Your task to perform on an android device: all mails in gmail Image 0: 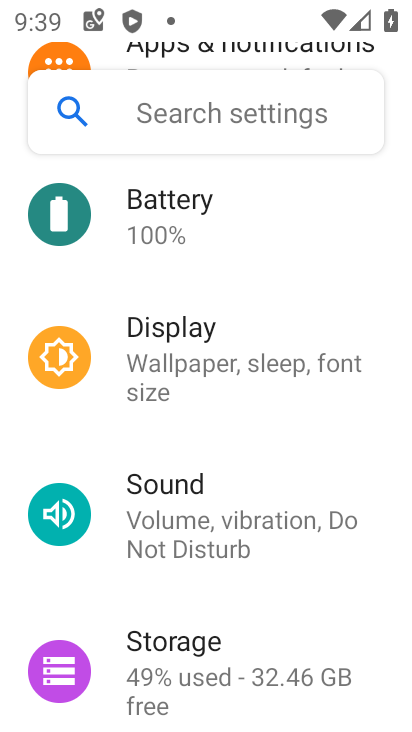
Step 0: press home button
Your task to perform on an android device: all mails in gmail Image 1: 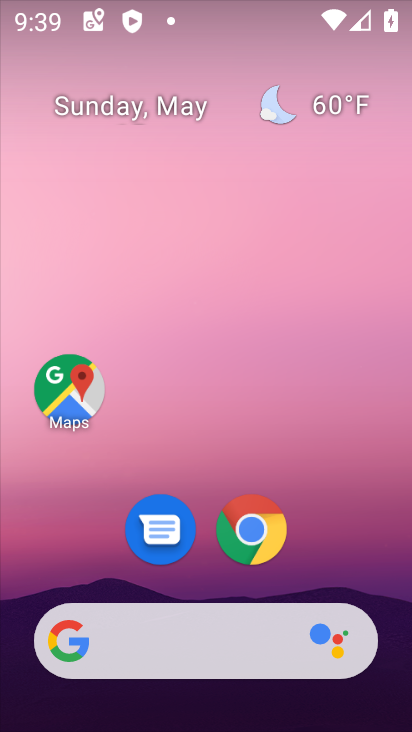
Step 1: drag from (331, 558) to (379, 103)
Your task to perform on an android device: all mails in gmail Image 2: 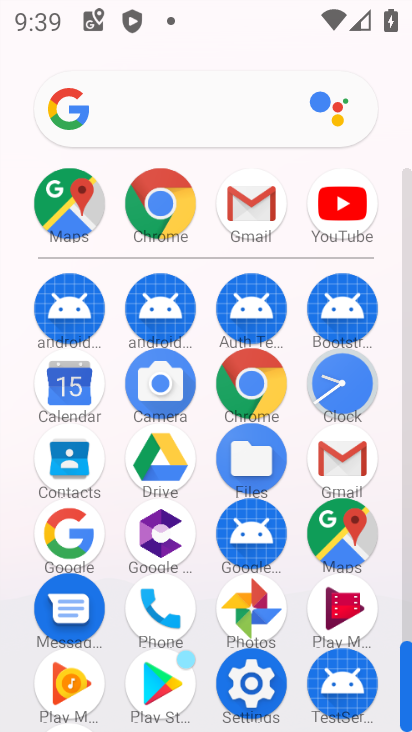
Step 2: click (344, 476)
Your task to perform on an android device: all mails in gmail Image 3: 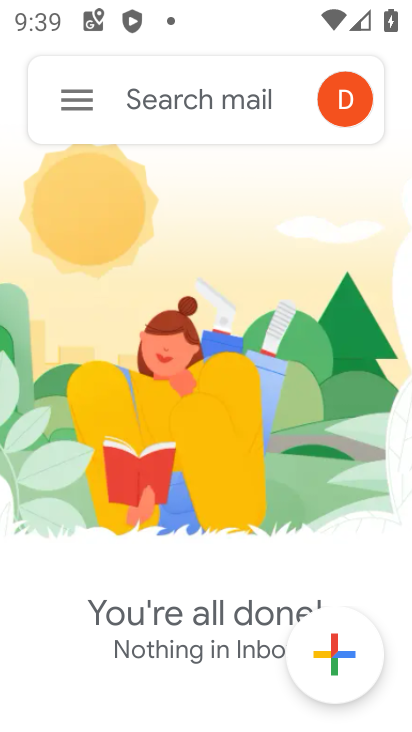
Step 3: click (94, 97)
Your task to perform on an android device: all mails in gmail Image 4: 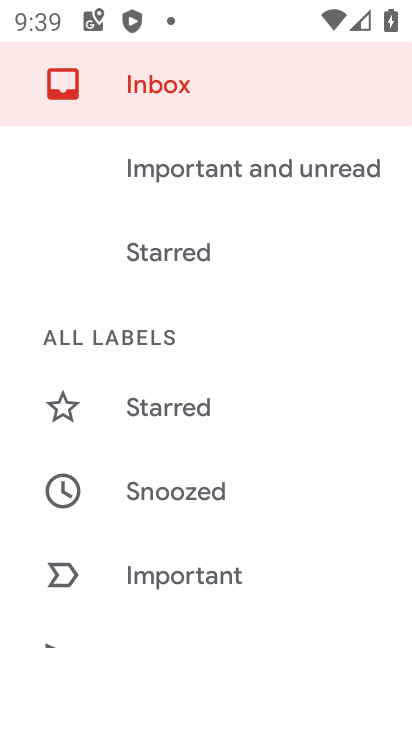
Step 4: drag from (334, 481) to (332, 350)
Your task to perform on an android device: all mails in gmail Image 5: 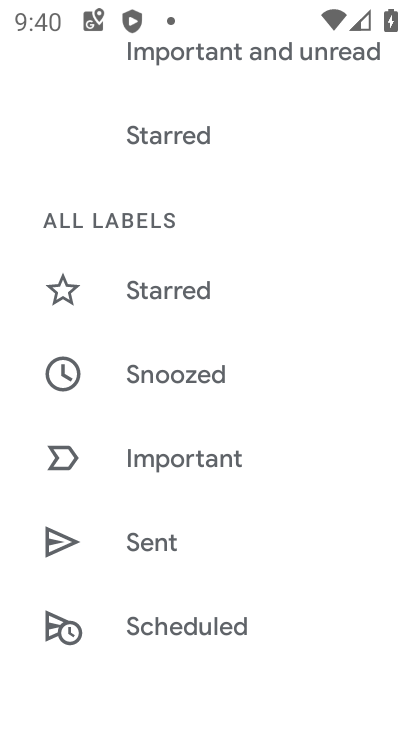
Step 5: drag from (314, 602) to (316, 412)
Your task to perform on an android device: all mails in gmail Image 6: 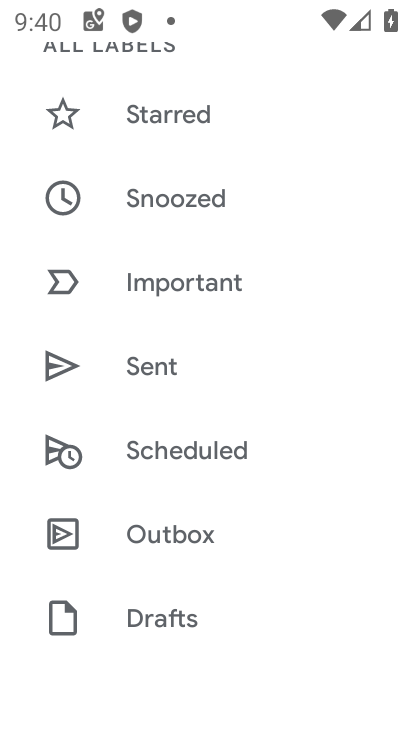
Step 6: drag from (312, 628) to (314, 419)
Your task to perform on an android device: all mails in gmail Image 7: 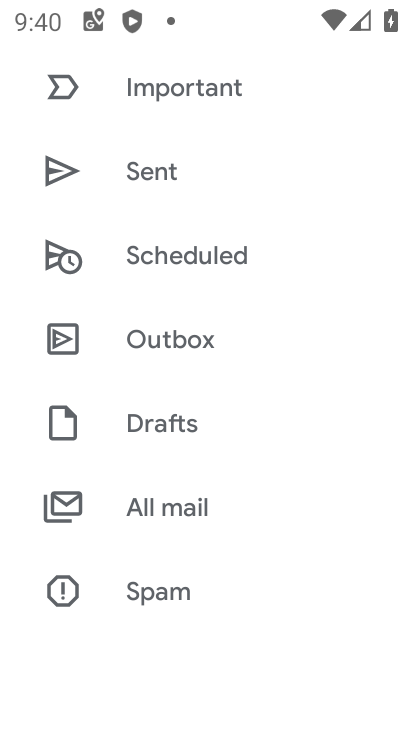
Step 7: drag from (322, 601) to (332, 339)
Your task to perform on an android device: all mails in gmail Image 8: 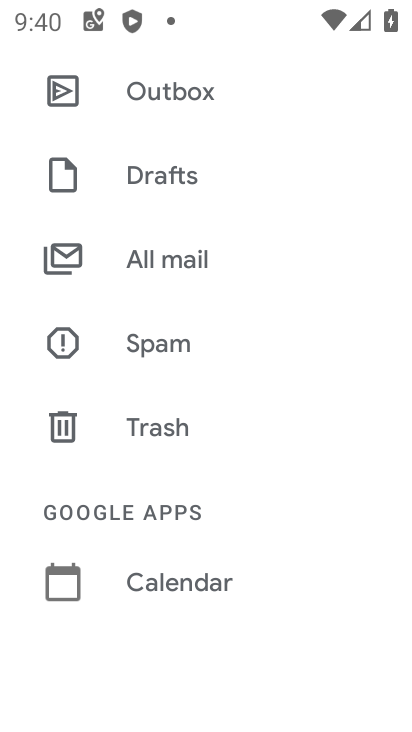
Step 8: drag from (320, 594) to (315, 327)
Your task to perform on an android device: all mails in gmail Image 9: 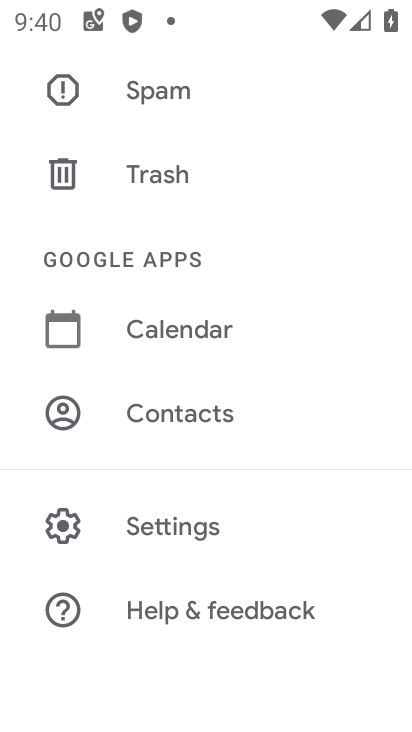
Step 9: drag from (322, 220) to (336, 474)
Your task to perform on an android device: all mails in gmail Image 10: 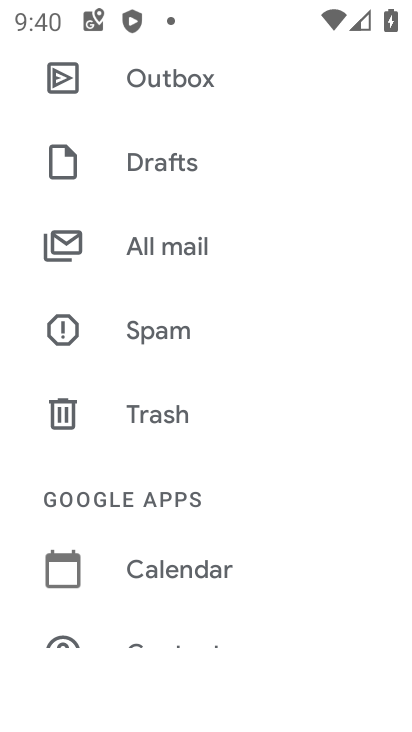
Step 10: click (203, 242)
Your task to perform on an android device: all mails in gmail Image 11: 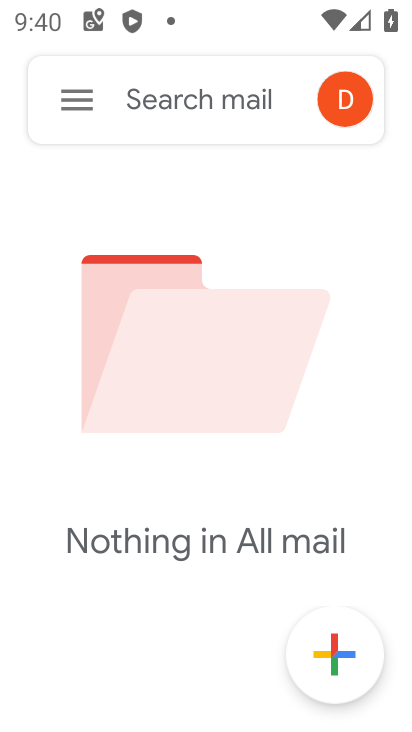
Step 11: task complete